Your task to perform on an android device: toggle javascript in the chrome app Image 0: 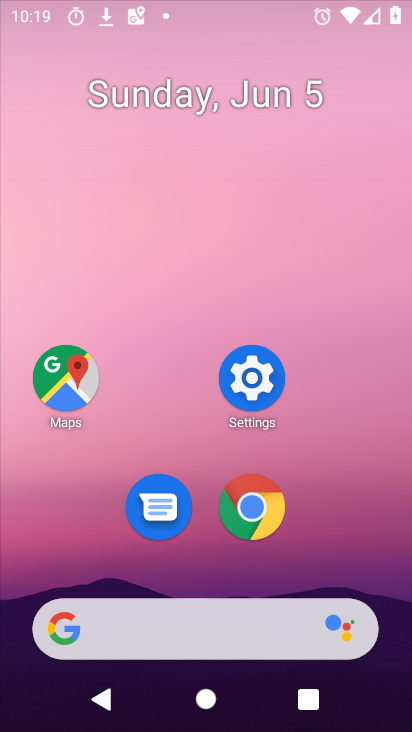
Step 0: drag from (255, 637) to (210, 204)
Your task to perform on an android device: toggle javascript in the chrome app Image 1: 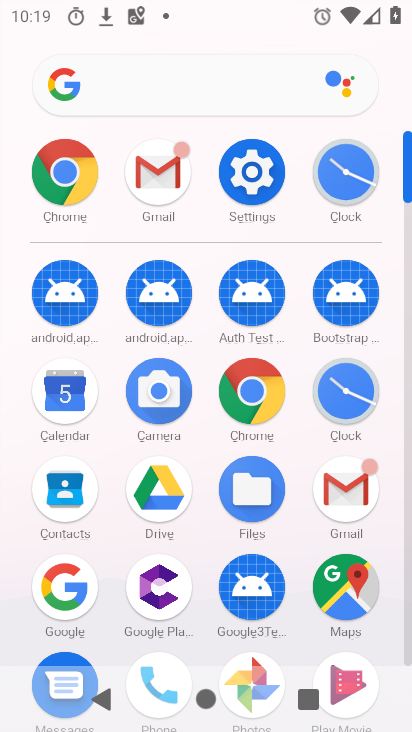
Step 1: click (54, 169)
Your task to perform on an android device: toggle javascript in the chrome app Image 2: 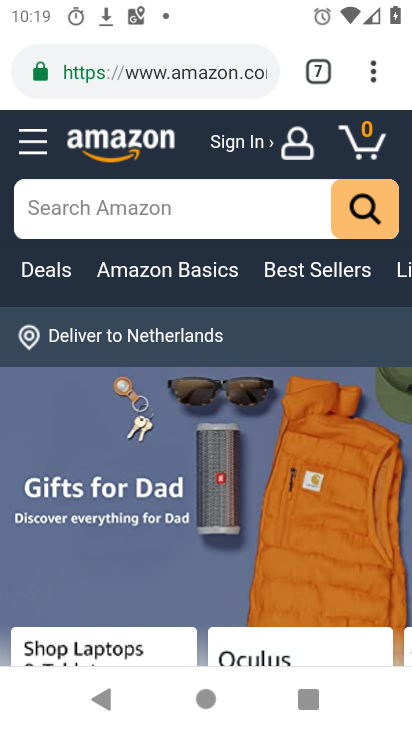
Step 2: click (358, 78)
Your task to perform on an android device: toggle javascript in the chrome app Image 3: 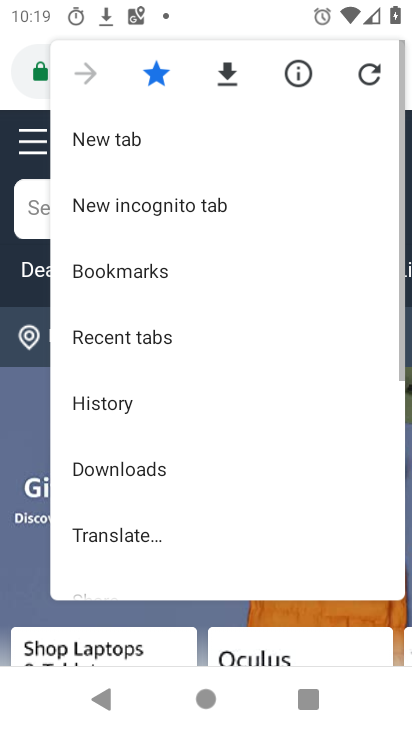
Step 3: drag from (143, 515) to (215, 222)
Your task to perform on an android device: toggle javascript in the chrome app Image 4: 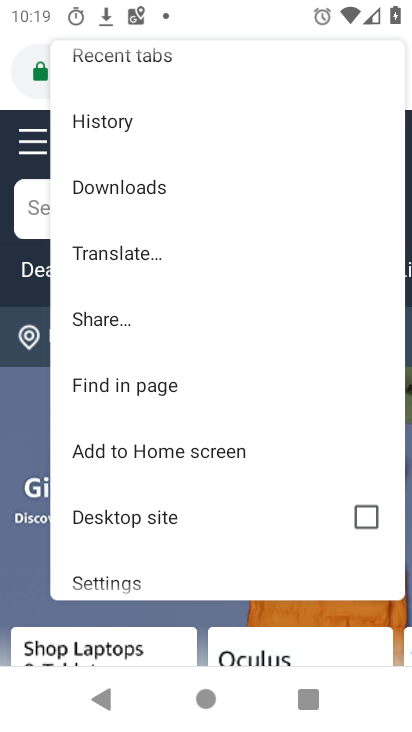
Step 4: click (131, 575)
Your task to perform on an android device: toggle javascript in the chrome app Image 5: 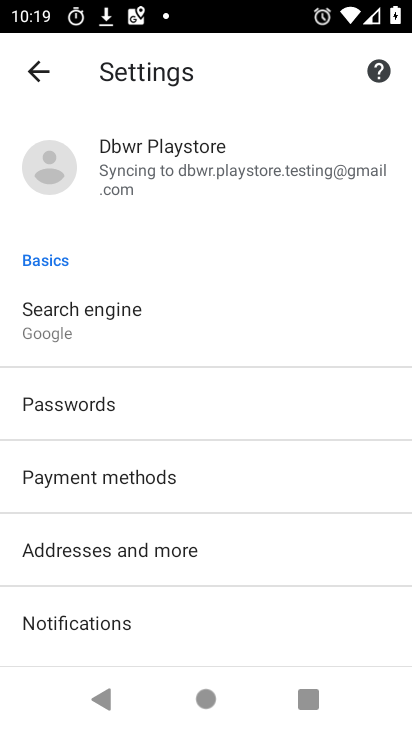
Step 5: drag from (123, 601) to (164, 394)
Your task to perform on an android device: toggle javascript in the chrome app Image 6: 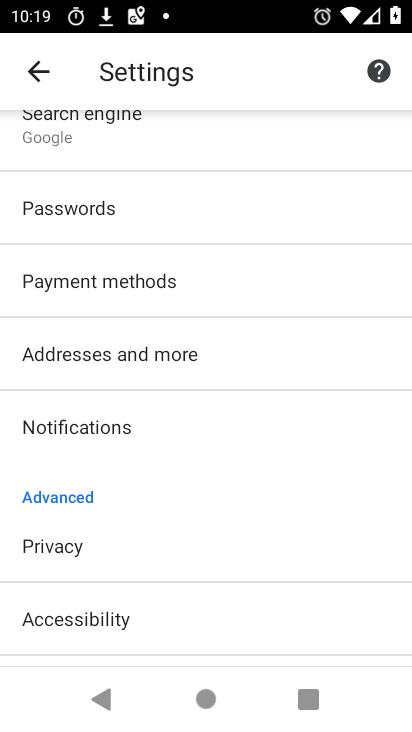
Step 6: drag from (144, 569) to (159, 360)
Your task to perform on an android device: toggle javascript in the chrome app Image 7: 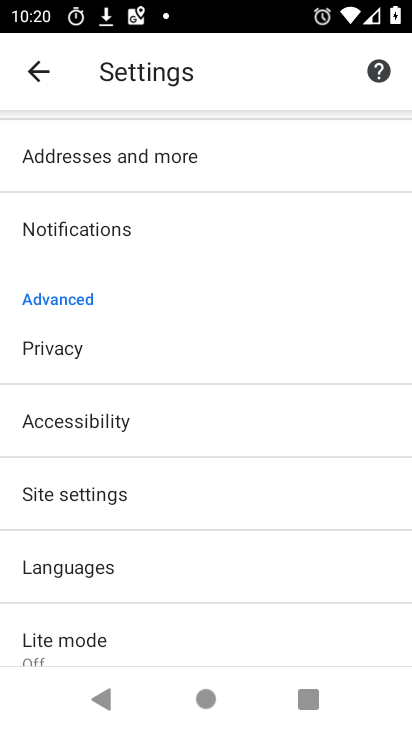
Step 7: click (91, 499)
Your task to perform on an android device: toggle javascript in the chrome app Image 8: 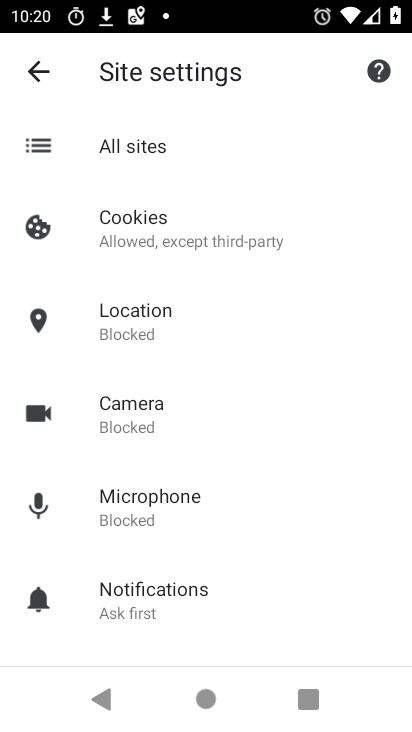
Step 8: drag from (131, 550) to (150, 323)
Your task to perform on an android device: toggle javascript in the chrome app Image 9: 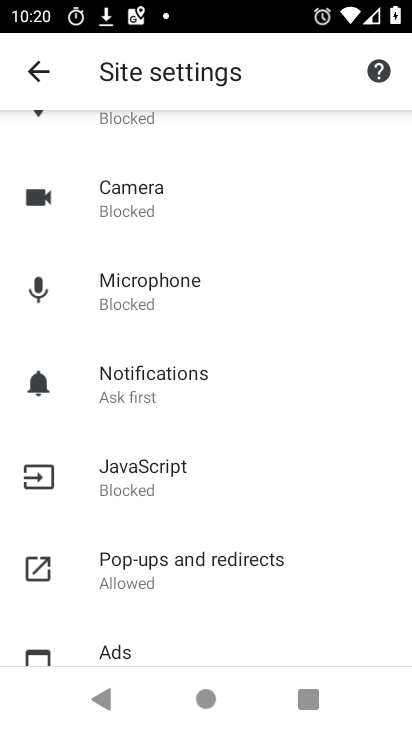
Step 9: click (132, 472)
Your task to perform on an android device: toggle javascript in the chrome app Image 10: 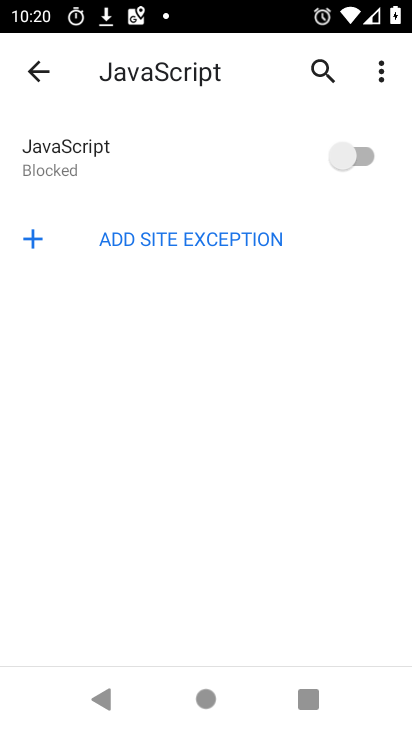
Step 10: task complete